Your task to perform on an android device: Play the last video I watched on Youtube Image 0: 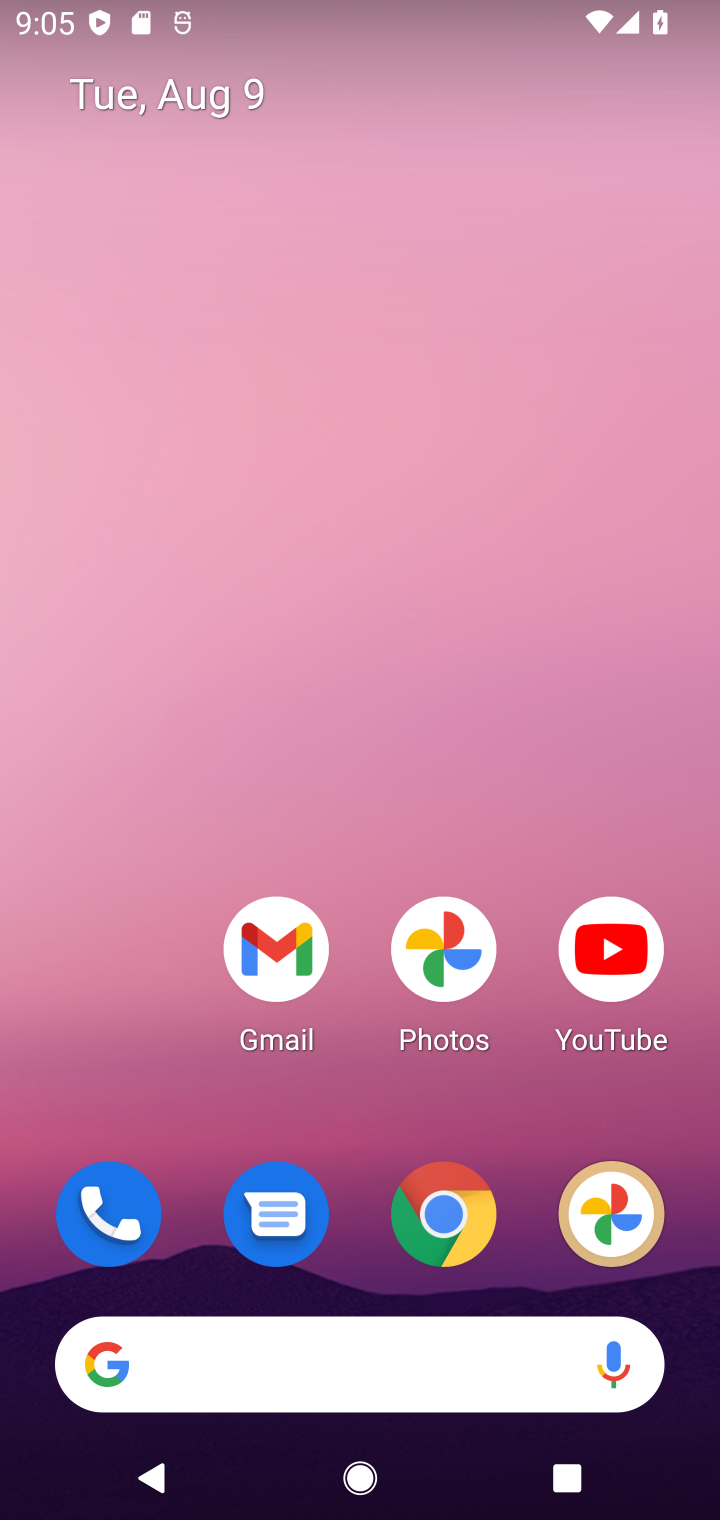
Step 0: click (626, 935)
Your task to perform on an android device: Play the last video I watched on Youtube Image 1: 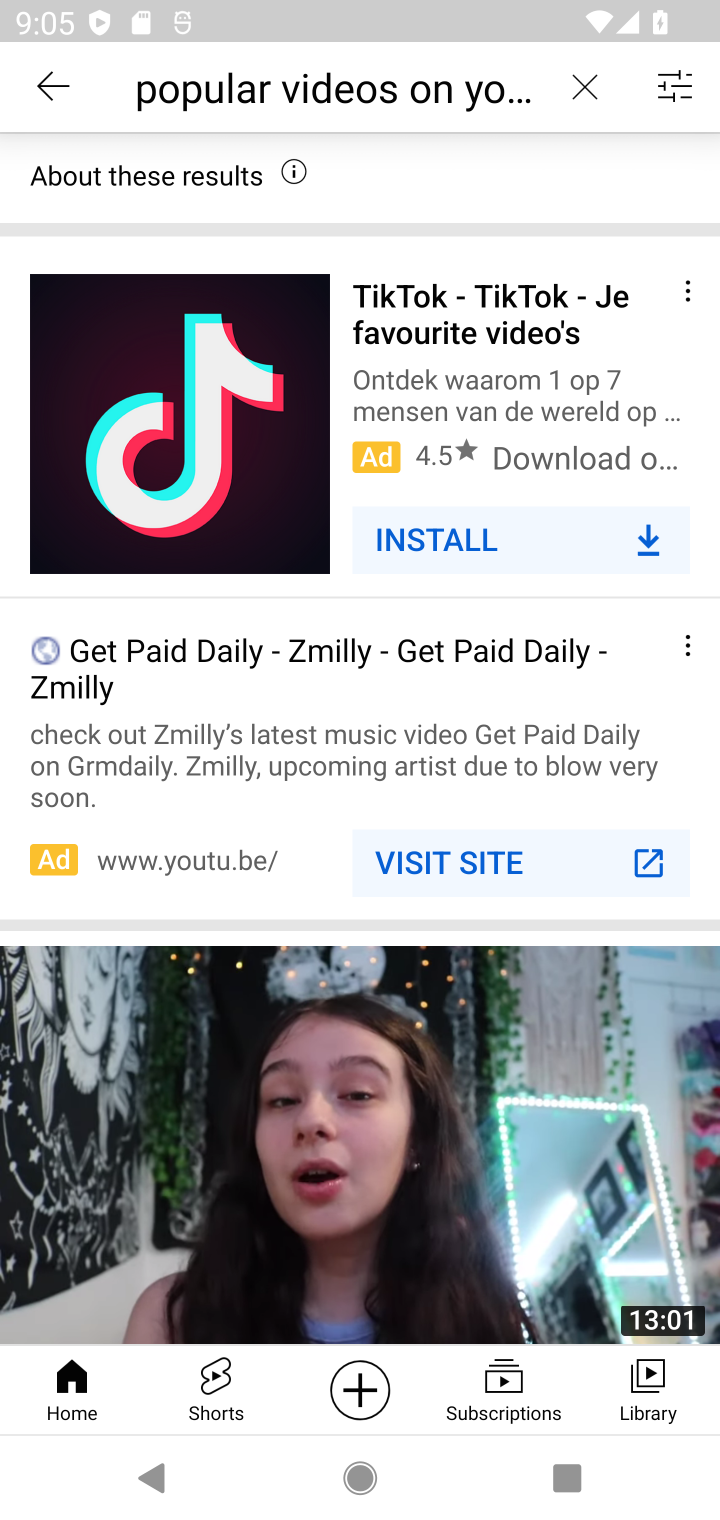
Step 1: click (48, 89)
Your task to perform on an android device: Play the last video I watched on Youtube Image 2: 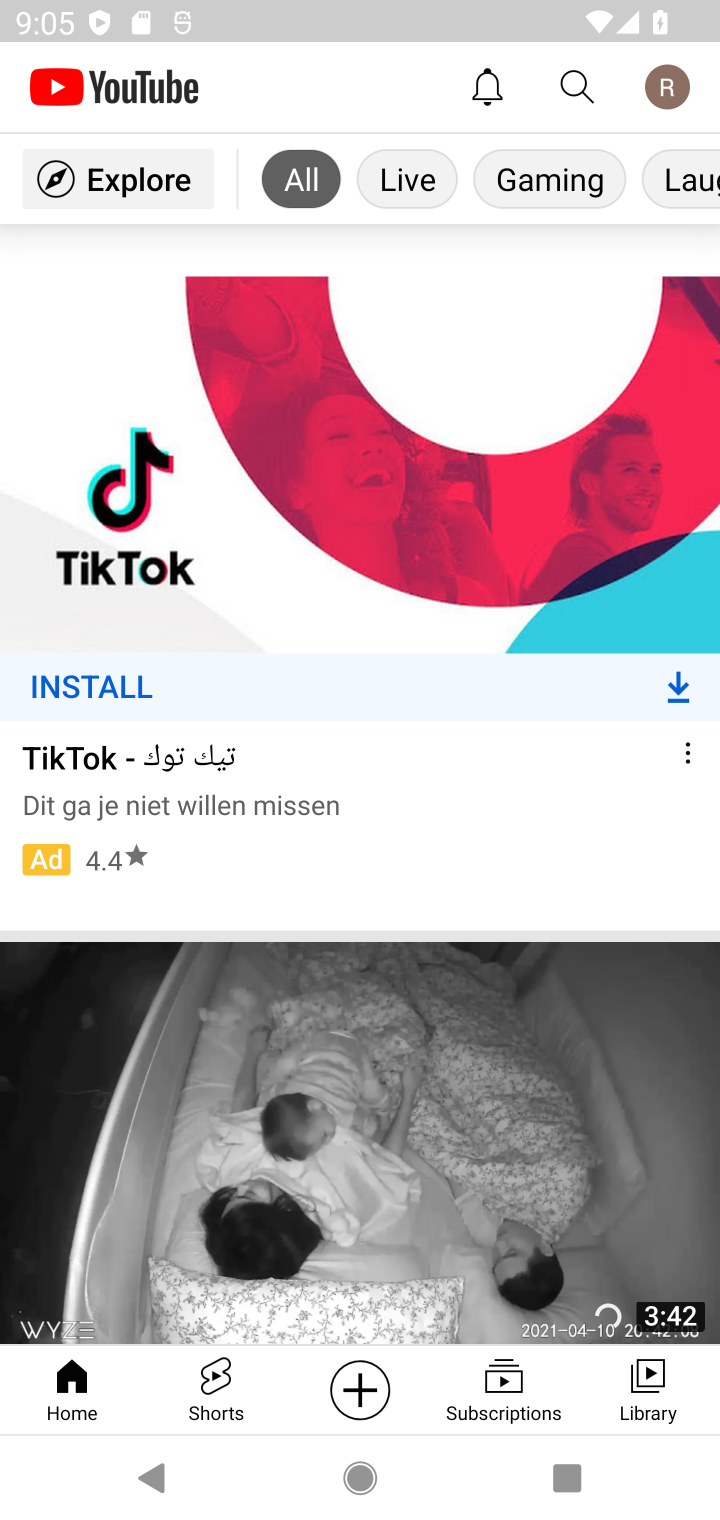
Step 2: click (656, 104)
Your task to perform on an android device: Play the last video I watched on Youtube Image 3: 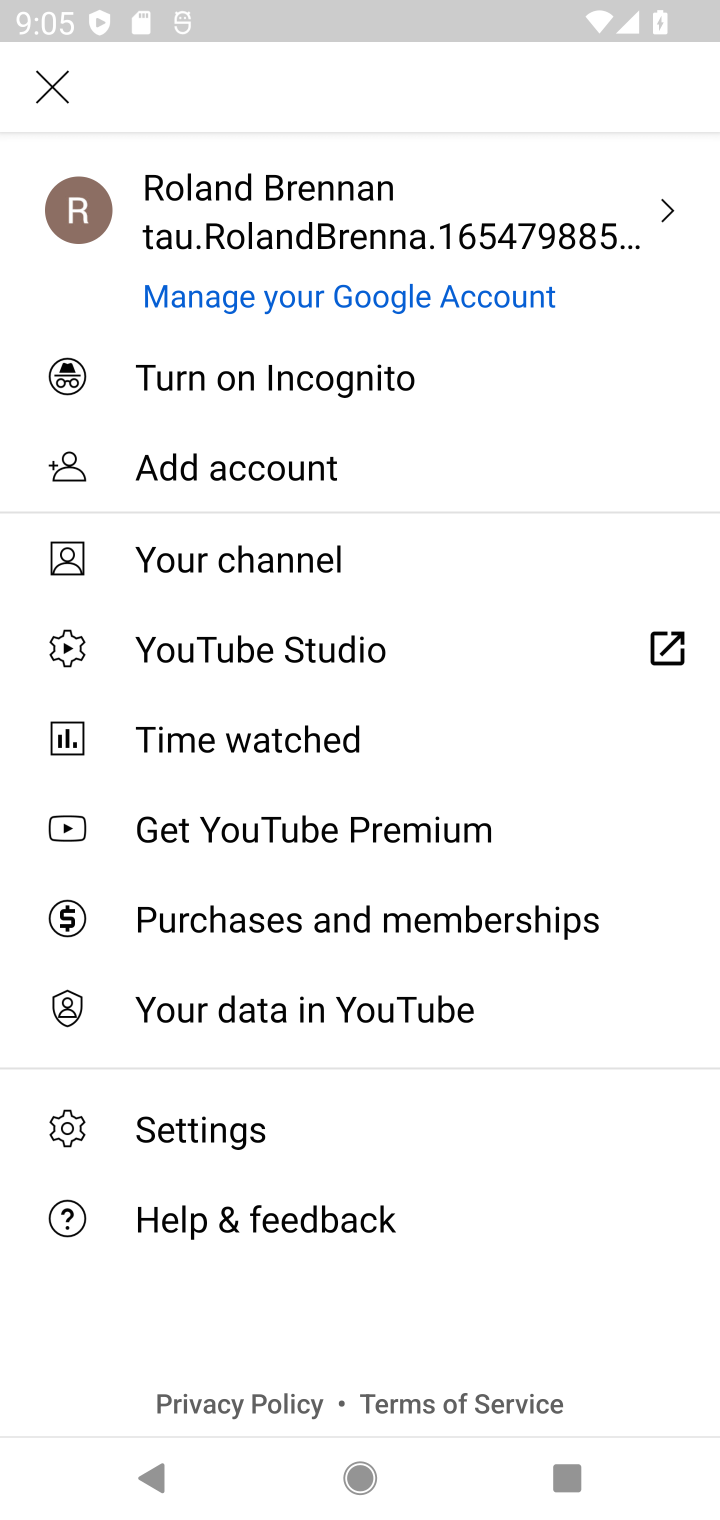
Step 3: click (49, 105)
Your task to perform on an android device: Play the last video I watched on Youtube Image 4: 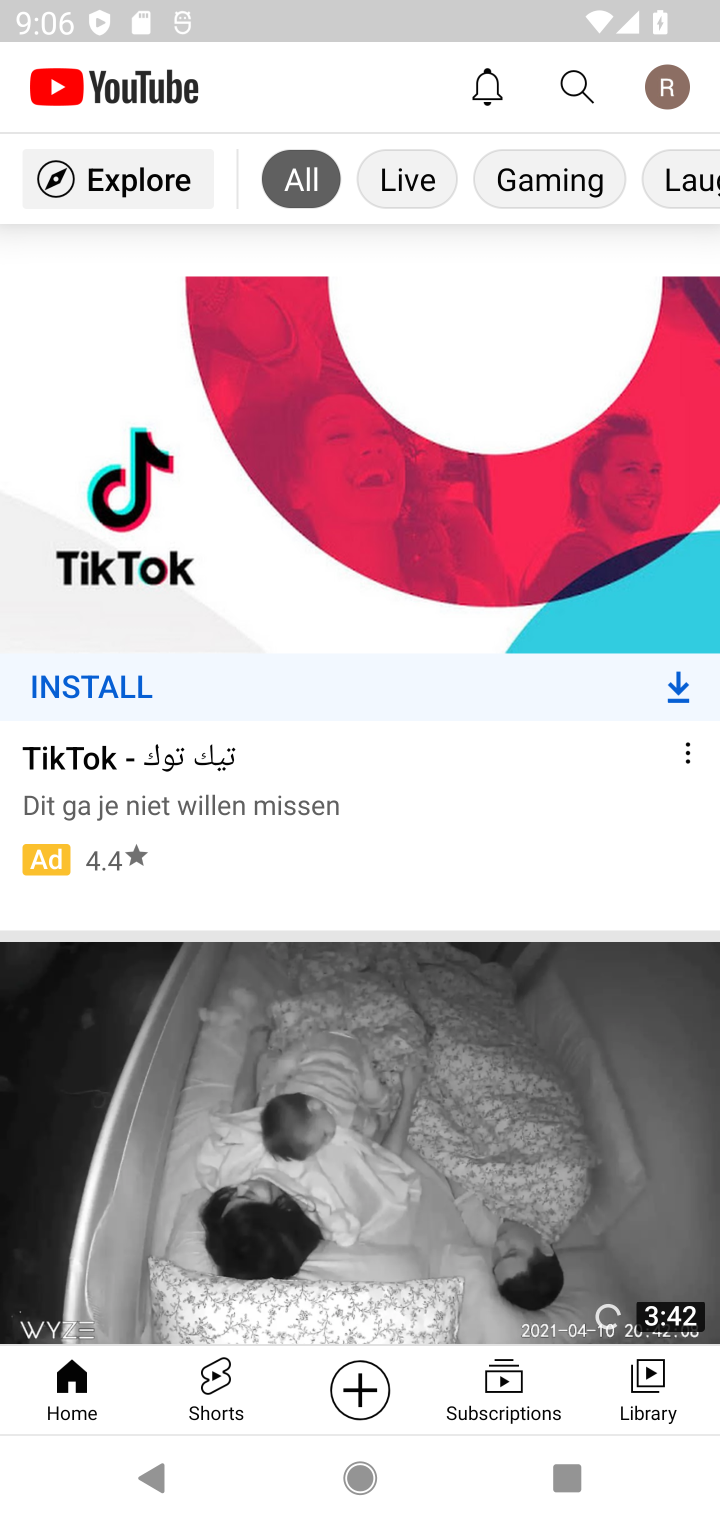
Step 4: click (672, 1405)
Your task to perform on an android device: Play the last video I watched on Youtube Image 5: 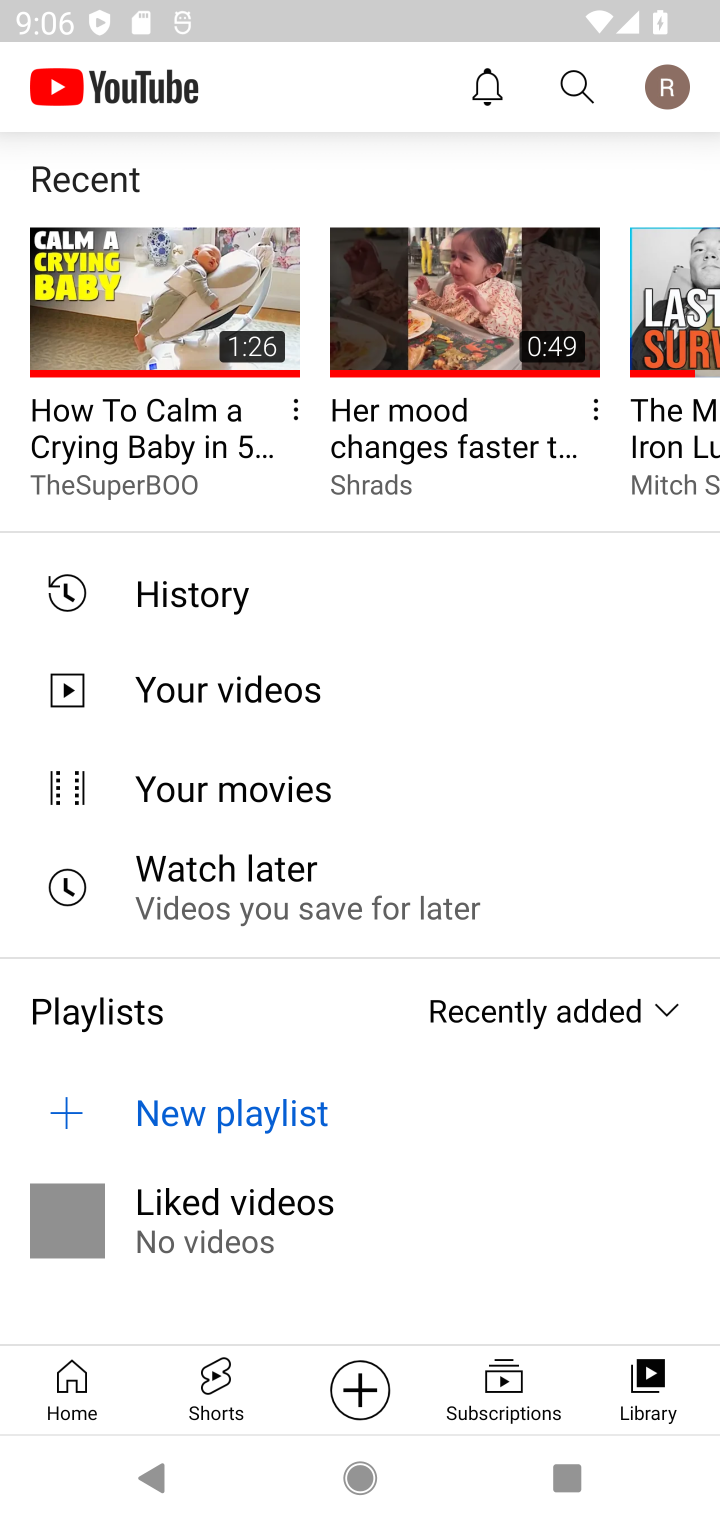
Step 5: task complete